Your task to perform on an android device: Open settings on Google Maps Image 0: 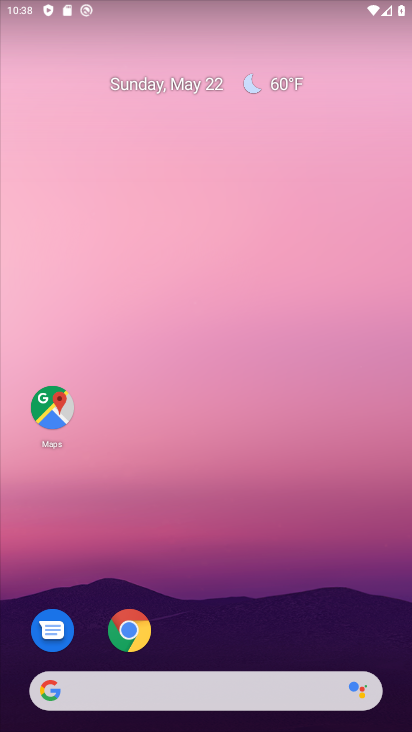
Step 0: click (51, 411)
Your task to perform on an android device: Open settings on Google Maps Image 1: 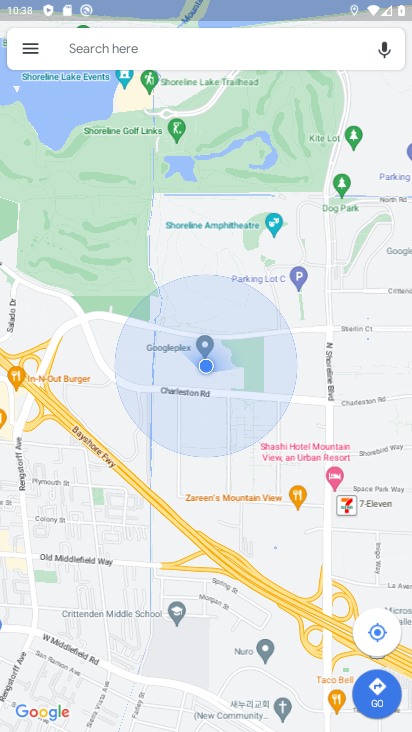
Step 1: click (32, 48)
Your task to perform on an android device: Open settings on Google Maps Image 2: 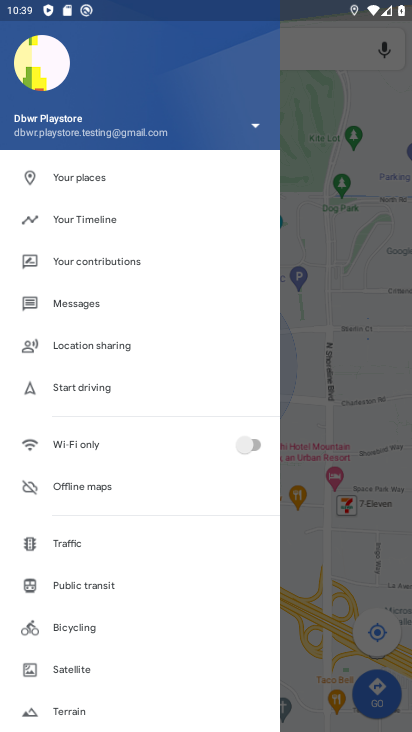
Step 2: drag from (123, 611) to (151, 532)
Your task to perform on an android device: Open settings on Google Maps Image 3: 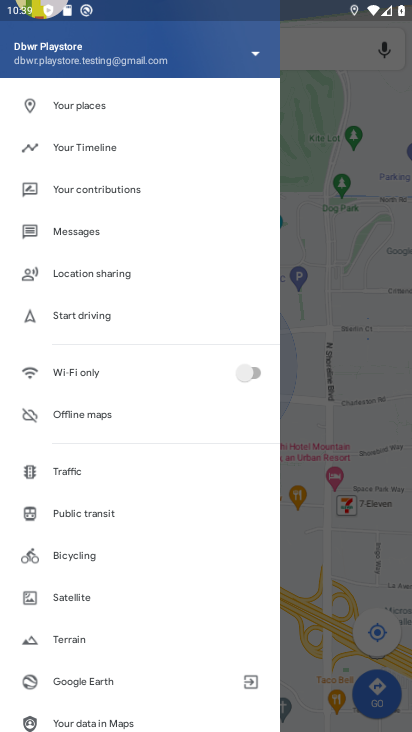
Step 3: drag from (106, 634) to (154, 542)
Your task to perform on an android device: Open settings on Google Maps Image 4: 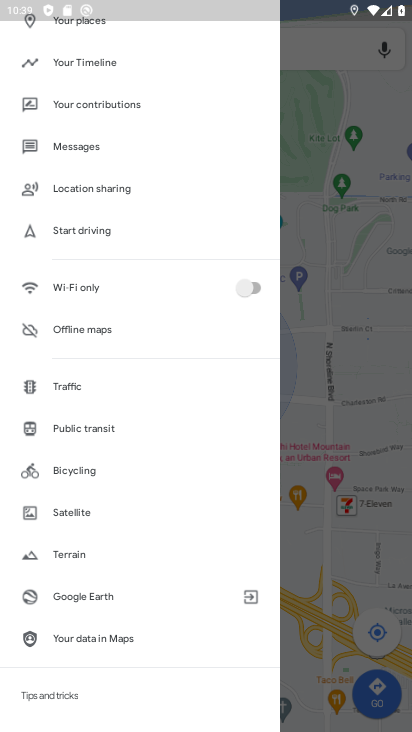
Step 4: drag from (73, 657) to (114, 558)
Your task to perform on an android device: Open settings on Google Maps Image 5: 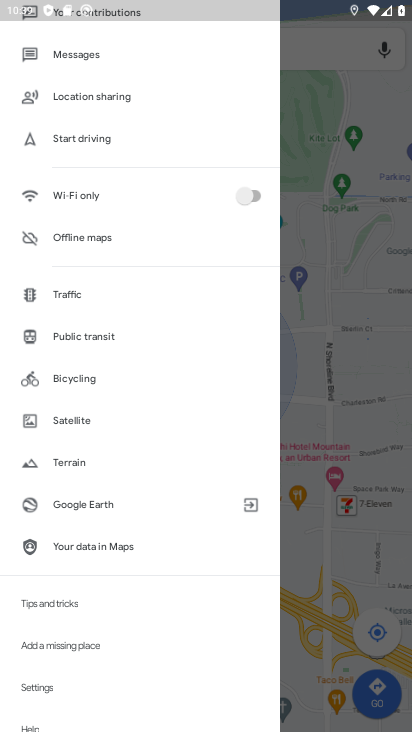
Step 5: drag from (62, 662) to (109, 568)
Your task to perform on an android device: Open settings on Google Maps Image 6: 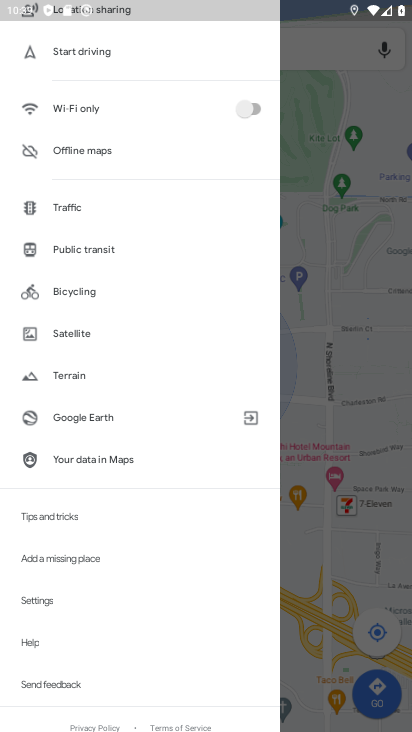
Step 6: click (45, 601)
Your task to perform on an android device: Open settings on Google Maps Image 7: 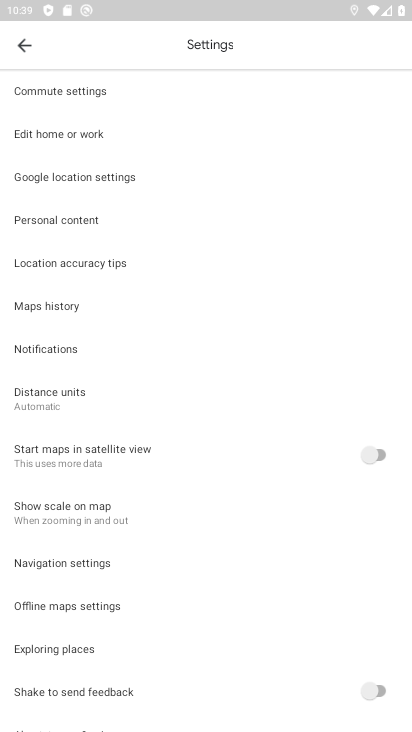
Step 7: task complete